Your task to perform on an android device: Open settings on Google Maps Image 0: 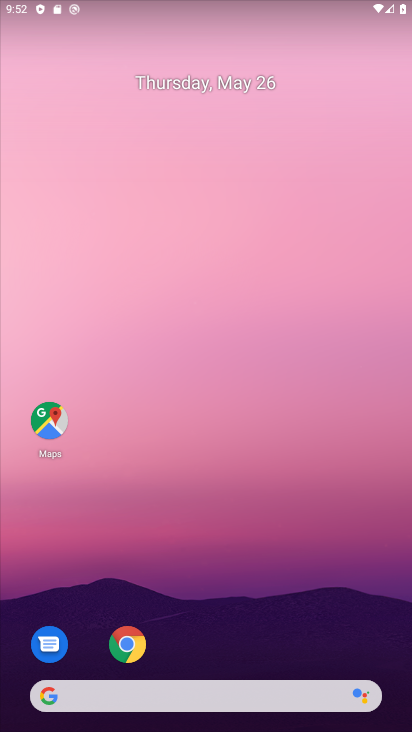
Step 0: drag from (342, 596) to (352, 452)
Your task to perform on an android device: Open settings on Google Maps Image 1: 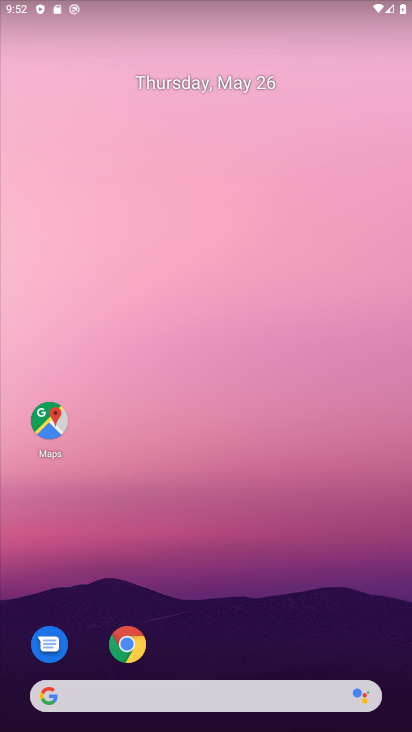
Step 1: drag from (353, 603) to (353, 143)
Your task to perform on an android device: Open settings on Google Maps Image 2: 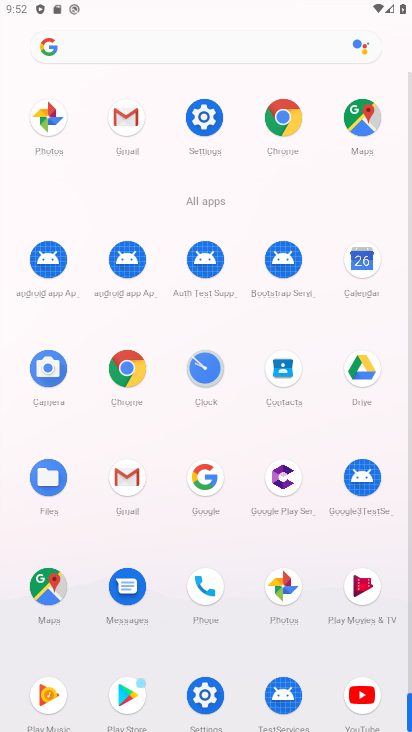
Step 2: click (364, 146)
Your task to perform on an android device: Open settings on Google Maps Image 3: 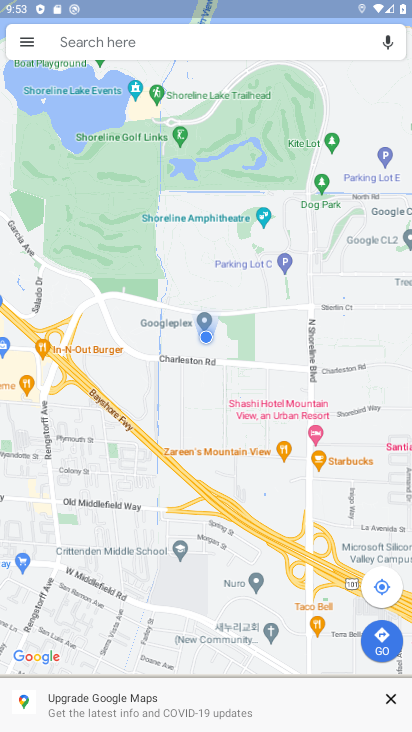
Step 3: click (18, 43)
Your task to perform on an android device: Open settings on Google Maps Image 4: 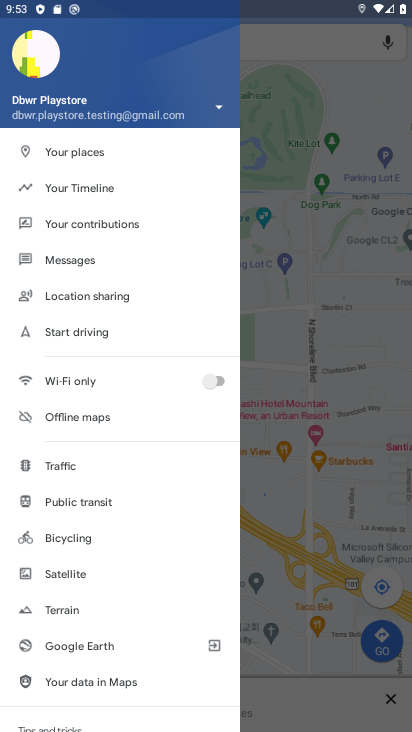
Step 4: drag from (164, 556) to (178, 355)
Your task to perform on an android device: Open settings on Google Maps Image 5: 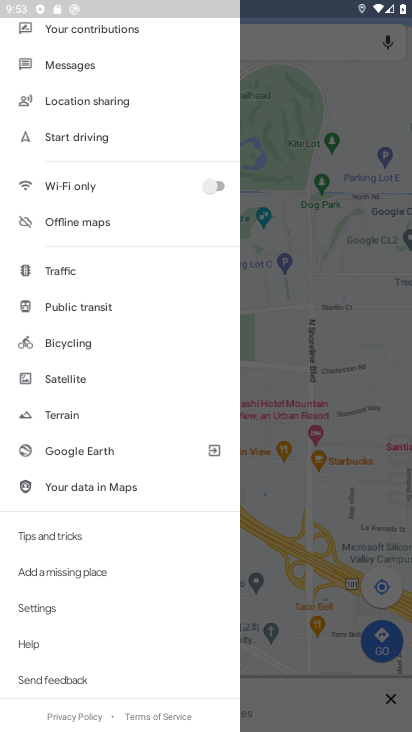
Step 5: drag from (162, 585) to (161, 371)
Your task to perform on an android device: Open settings on Google Maps Image 6: 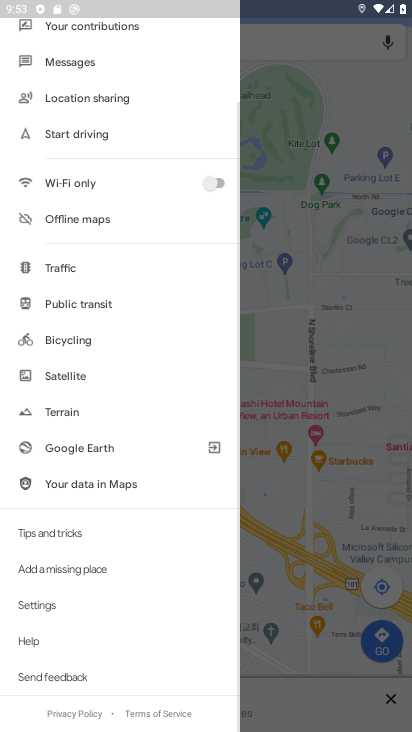
Step 6: click (68, 616)
Your task to perform on an android device: Open settings on Google Maps Image 7: 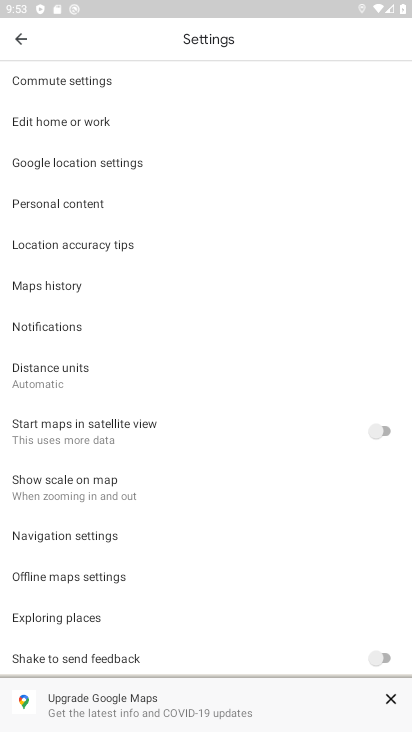
Step 7: task complete